Your task to perform on an android device: turn pop-ups on in chrome Image 0: 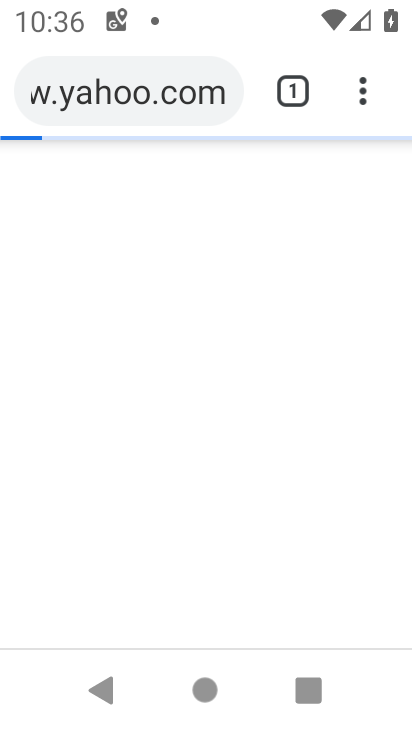
Step 0: press home button
Your task to perform on an android device: turn pop-ups on in chrome Image 1: 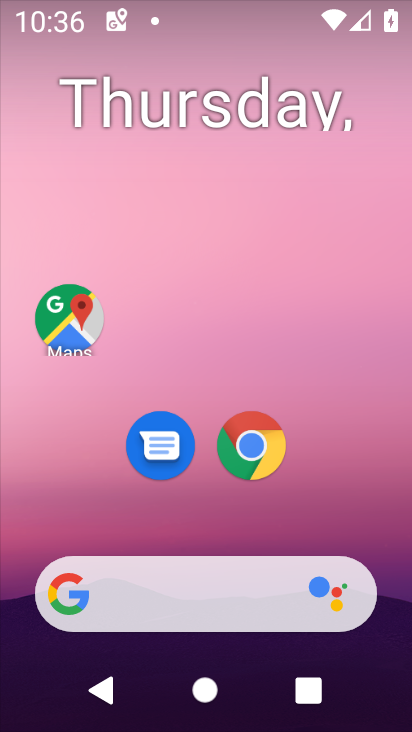
Step 1: drag from (392, 597) to (293, 26)
Your task to perform on an android device: turn pop-ups on in chrome Image 2: 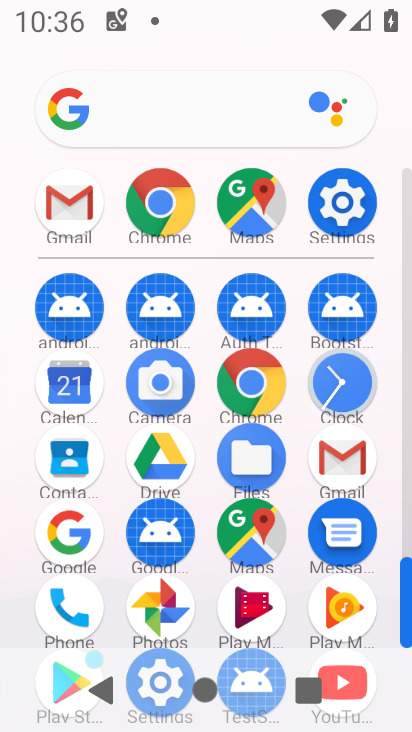
Step 2: click (263, 386)
Your task to perform on an android device: turn pop-ups on in chrome Image 3: 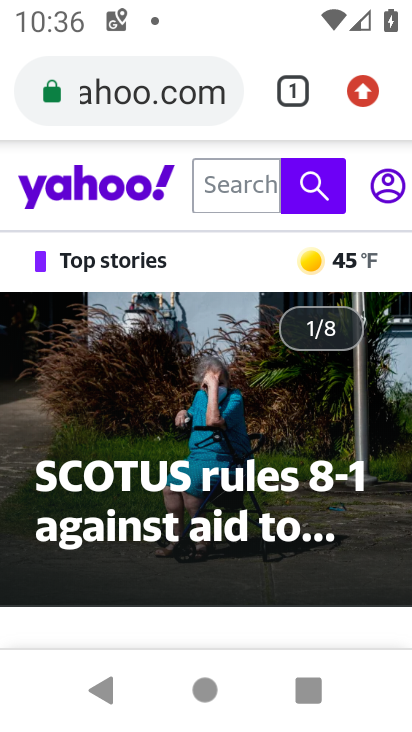
Step 3: press back button
Your task to perform on an android device: turn pop-ups on in chrome Image 4: 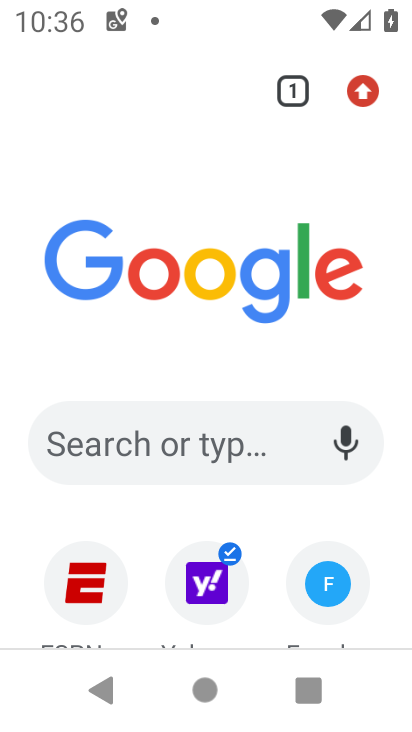
Step 4: click (370, 94)
Your task to perform on an android device: turn pop-ups on in chrome Image 5: 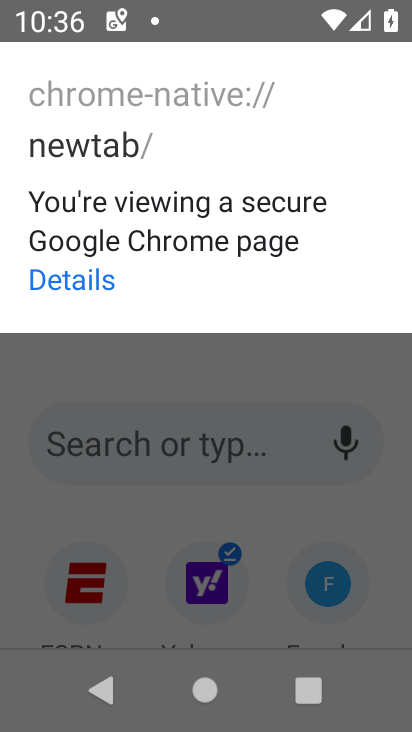
Step 5: click (320, 370)
Your task to perform on an android device: turn pop-ups on in chrome Image 6: 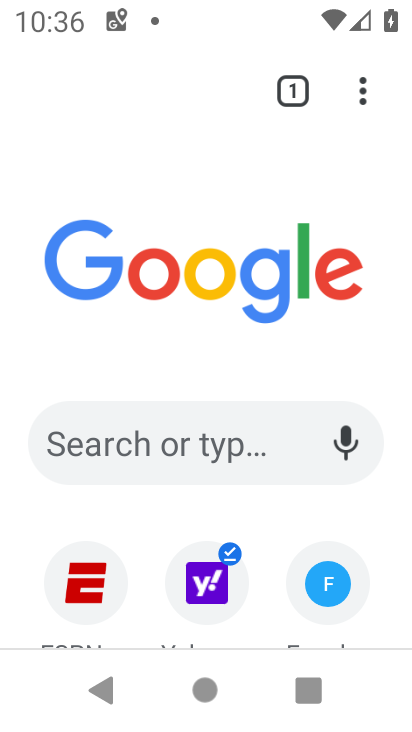
Step 6: click (365, 80)
Your task to perform on an android device: turn pop-ups on in chrome Image 7: 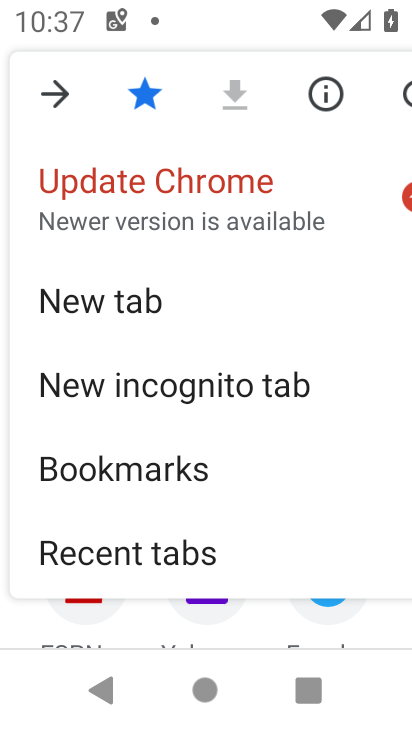
Step 7: drag from (246, 569) to (213, 114)
Your task to perform on an android device: turn pop-ups on in chrome Image 8: 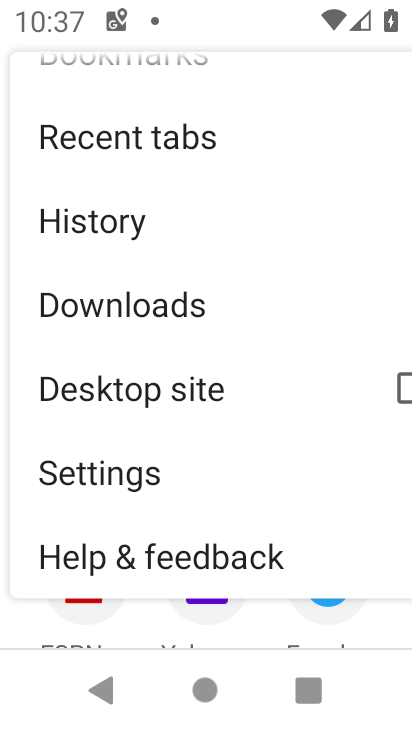
Step 8: click (189, 474)
Your task to perform on an android device: turn pop-ups on in chrome Image 9: 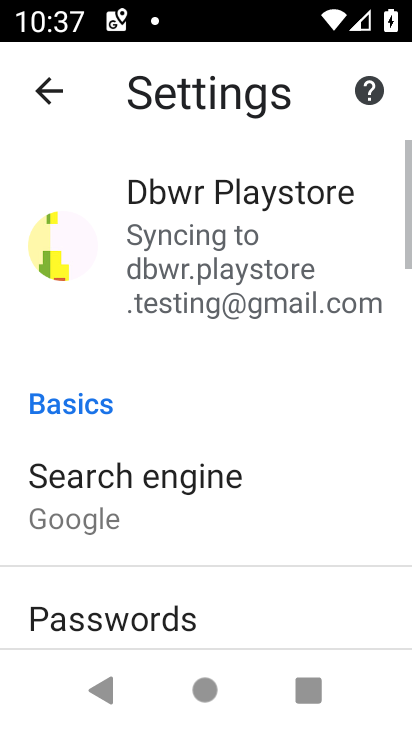
Step 9: drag from (141, 605) to (137, 87)
Your task to perform on an android device: turn pop-ups on in chrome Image 10: 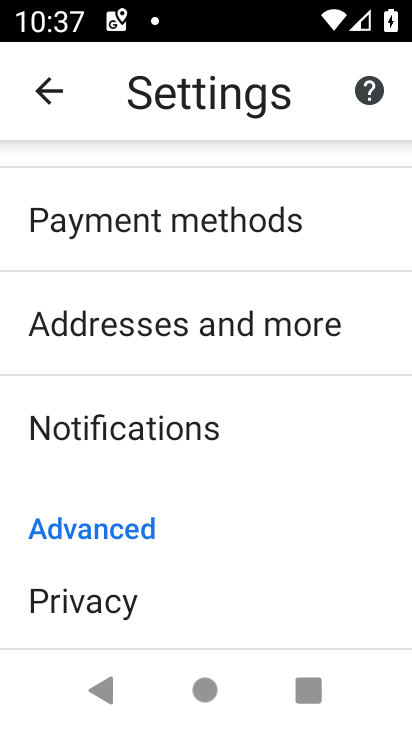
Step 10: drag from (152, 564) to (170, 161)
Your task to perform on an android device: turn pop-ups on in chrome Image 11: 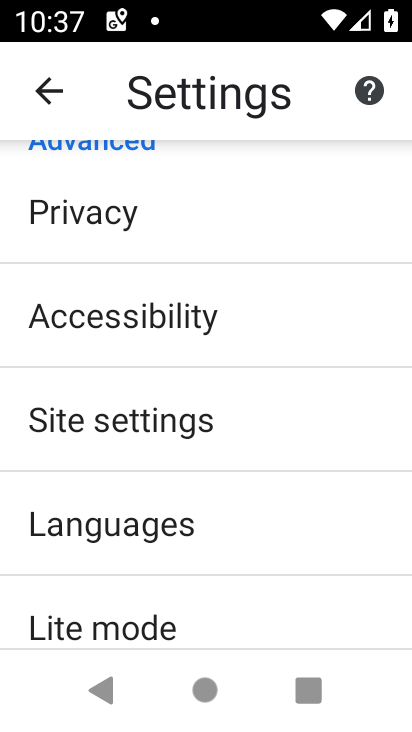
Step 11: click (210, 430)
Your task to perform on an android device: turn pop-ups on in chrome Image 12: 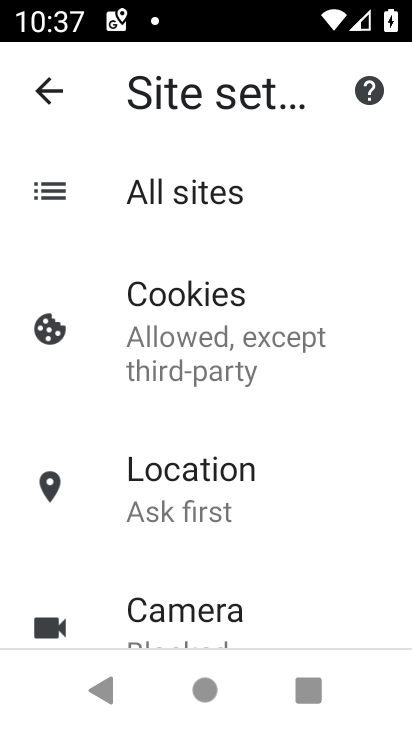
Step 12: drag from (188, 612) to (234, 167)
Your task to perform on an android device: turn pop-ups on in chrome Image 13: 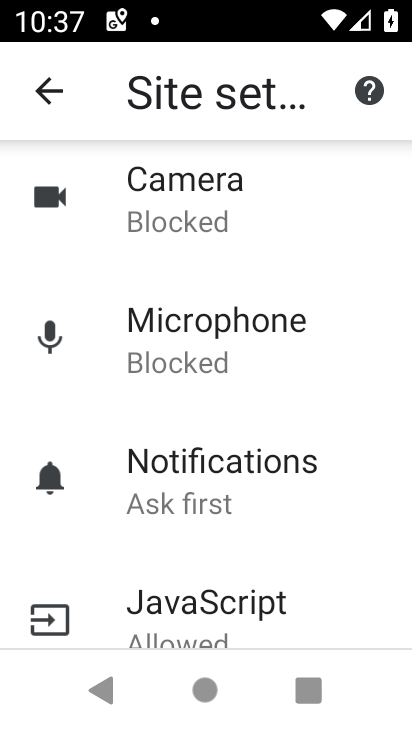
Step 13: drag from (226, 590) to (235, 178)
Your task to perform on an android device: turn pop-ups on in chrome Image 14: 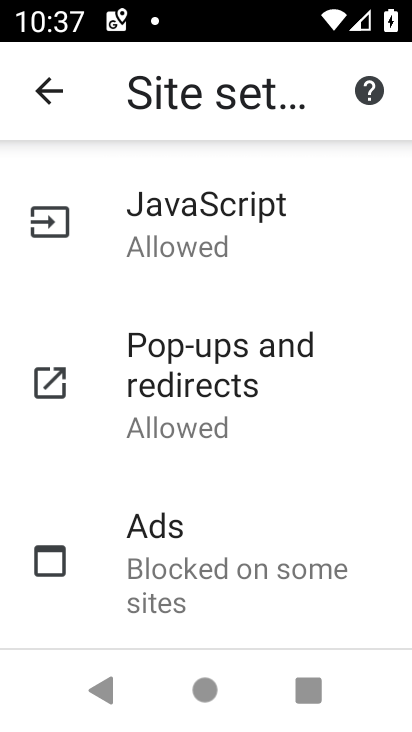
Step 14: click (251, 396)
Your task to perform on an android device: turn pop-ups on in chrome Image 15: 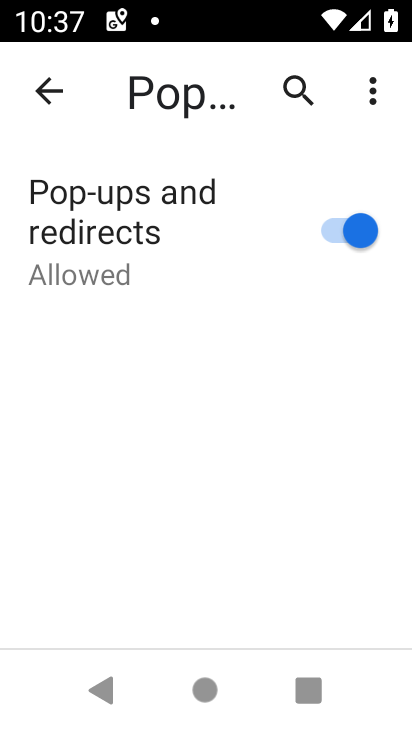
Step 15: task complete